Your task to perform on an android device: Go to Yahoo.com Image 0: 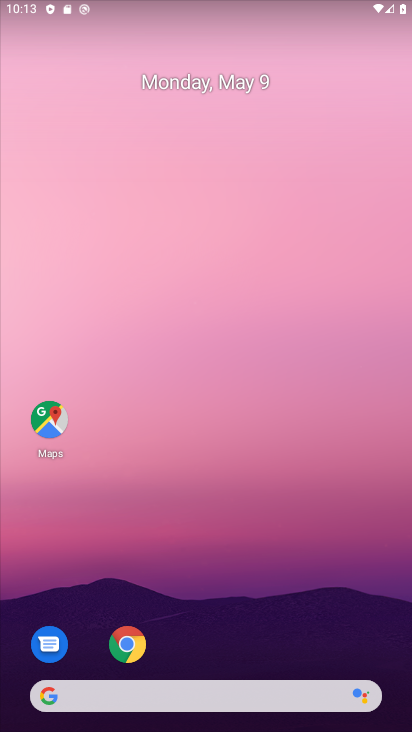
Step 0: click (127, 644)
Your task to perform on an android device: Go to Yahoo.com Image 1: 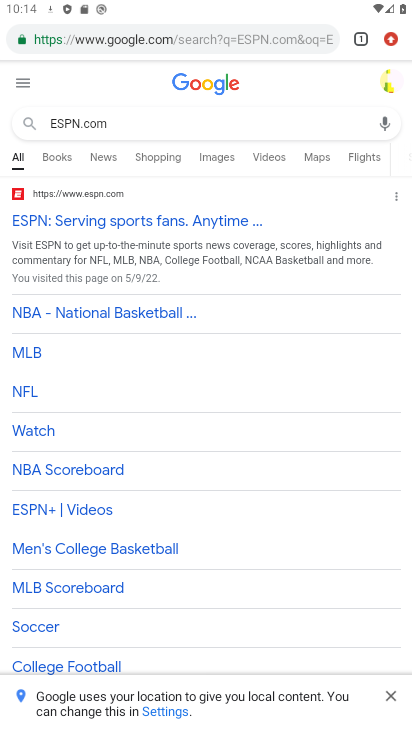
Step 1: click (227, 37)
Your task to perform on an android device: Go to Yahoo.com Image 2: 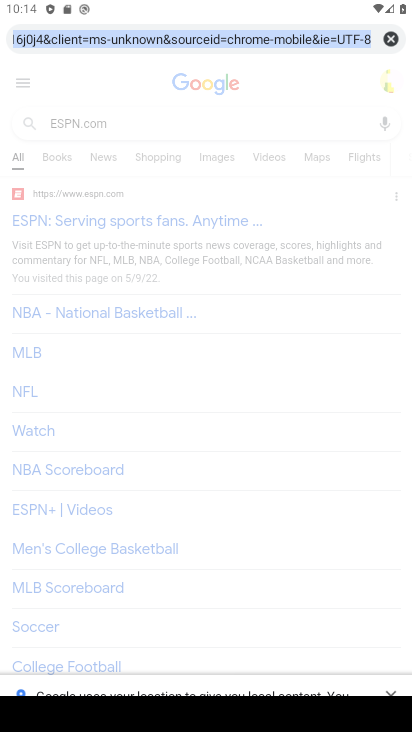
Step 2: type "yahoo.com"
Your task to perform on an android device: Go to Yahoo.com Image 3: 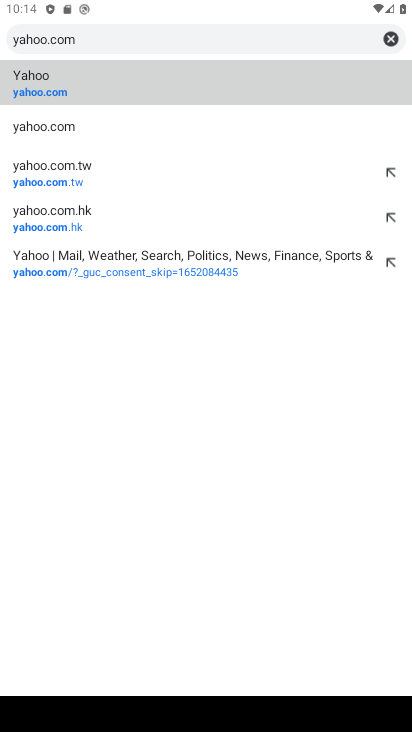
Step 3: click (46, 73)
Your task to perform on an android device: Go to Yahoo.com Image 4: 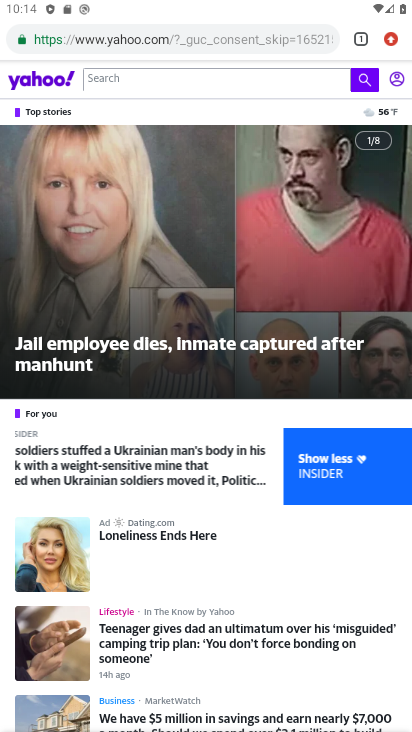
Step 4: task complete